Your task to perform on an android device: Go to sound settings Image 0: 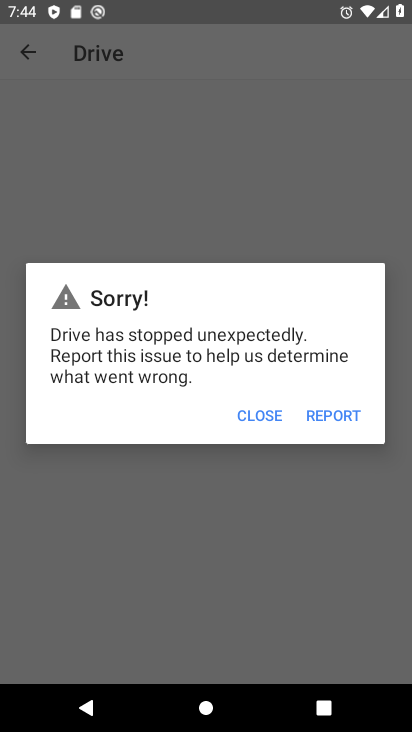
Step 0: press home button
Your task to perform on an android device: Go to sound settings Image 1: 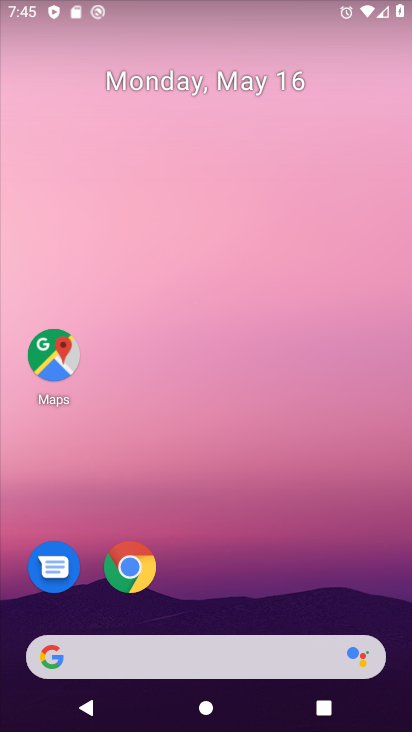
Step 1: drag from (193, 611) to (203, 159)
Your task to perform on an android device: Go to sound settings Image 2: 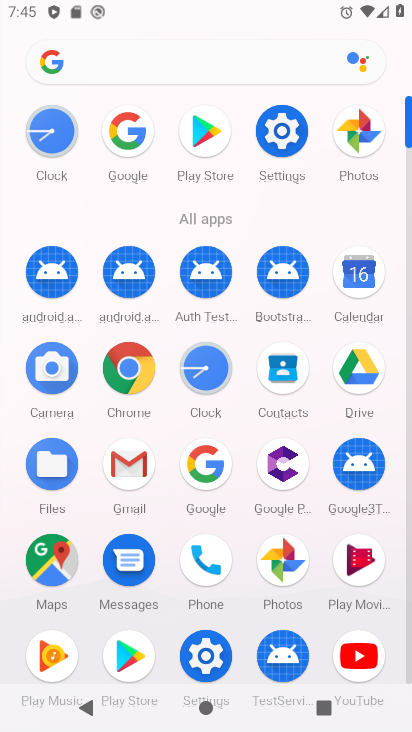
Step 2: click (276, 164)
Your task to perform on an android device: Go to sound settings Image 3: 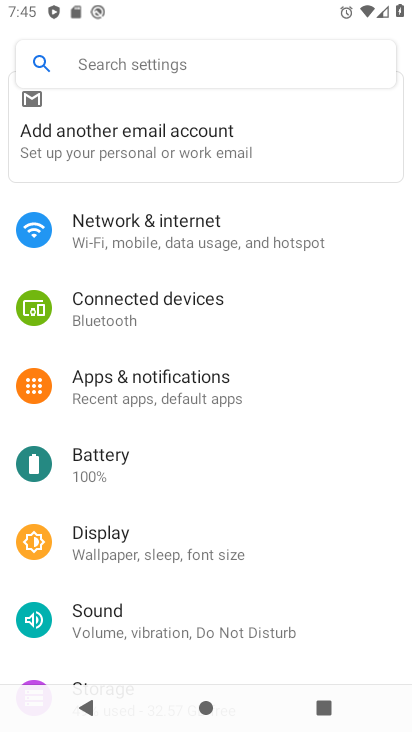
Step 3: click (116, 623)
Your task to perform on an android device: Go to sound settings Image 4: 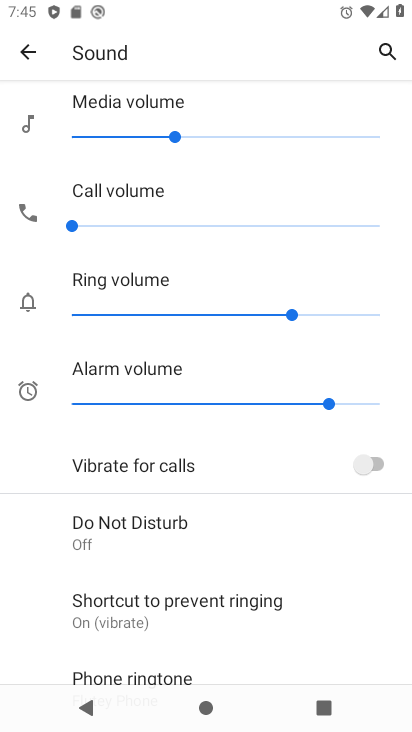
Step 4: drag from (191, 652) to (166, 297)
Your task to perform on an android device: Go to sound settings Image 5: 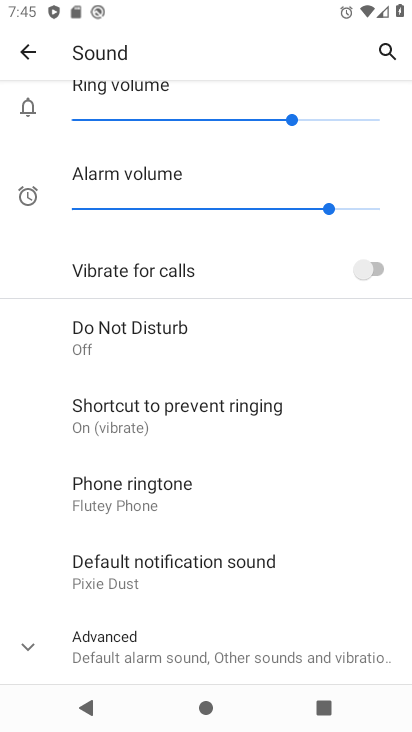
Step 5: drag from (161, 675) to (161, 375)
Your task to perform on an android device: Go to sound settings Image 6: 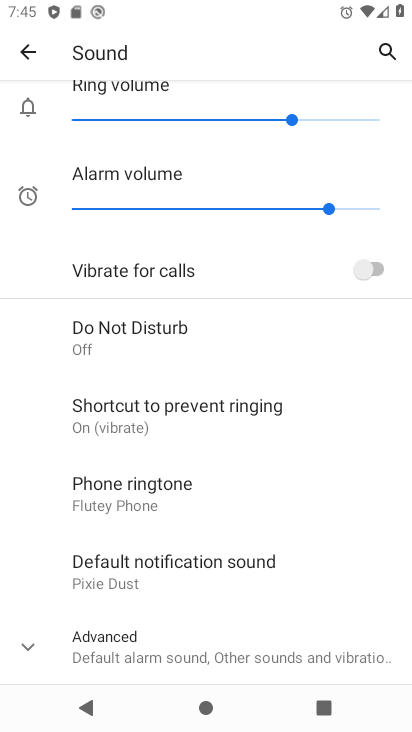
Step 6: click (120, 647)
Your task to perform on an android device: Go to sound settings Image 7: 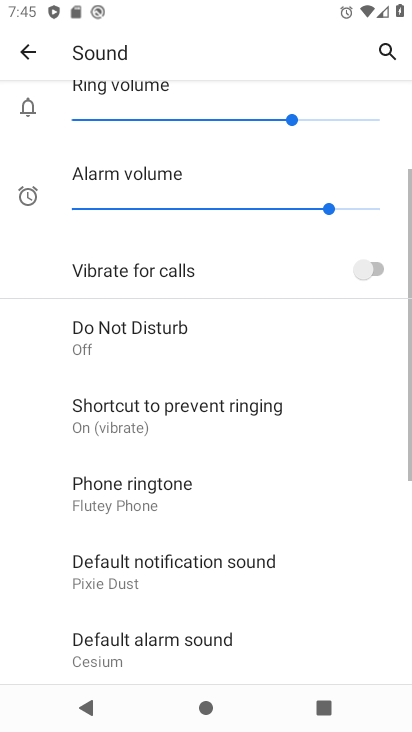
Step 7: task complete